Your task to perform on an android device: open a bookmark in the chrome app Image 0: 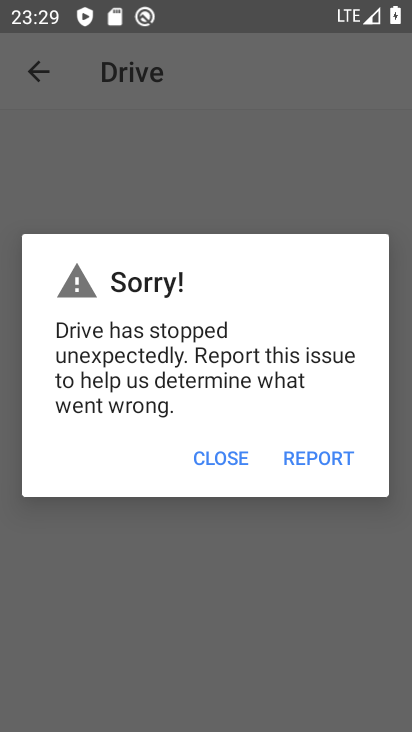
Step 0: press home button
Your task to perform on an android device: open a bookmark in the chrome app Image 1: 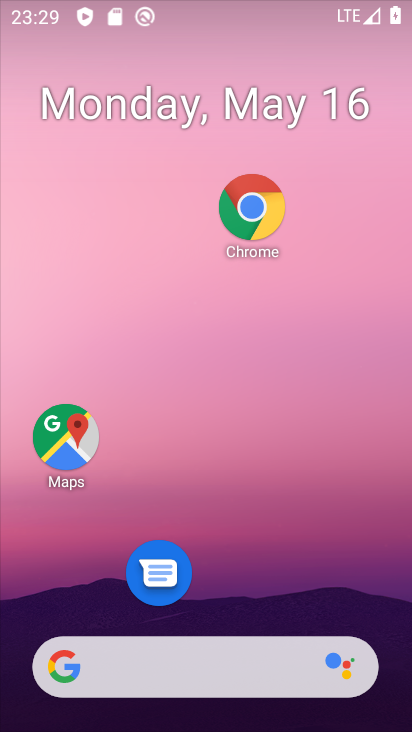
Step 1: drag from (299, 654) to (333, 49)
Your task to perform on an android device: open a bookmark in the chrome app Image 2: 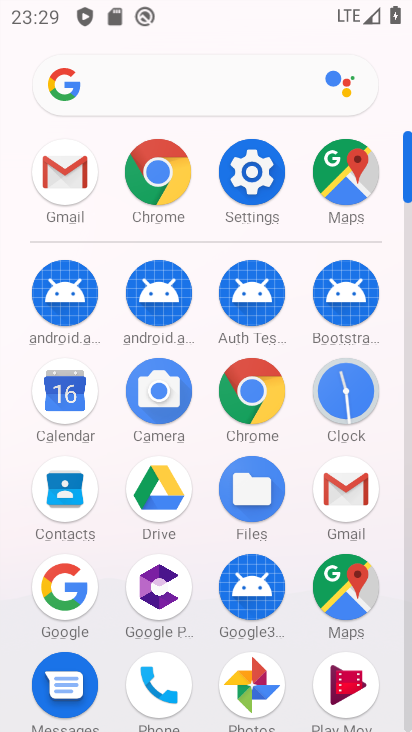
Step 2: click (237, 398)
Your task to perform on an android device: open a bookmark in the chrome app Image 3: 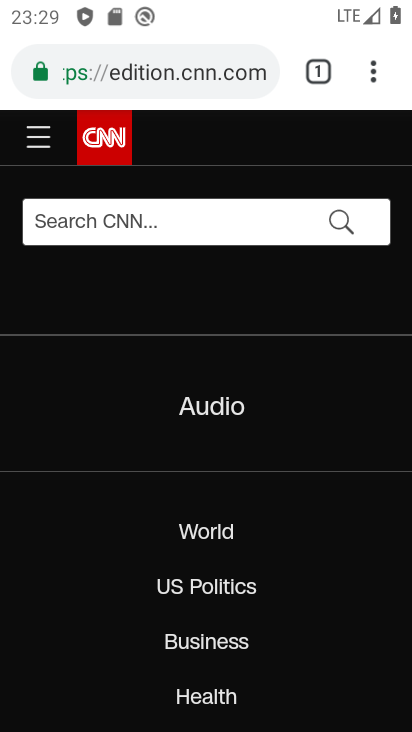
Step 3: click (375, 70)
Your task to perform on an android device: open a bookmark in the chrome app Image 4: 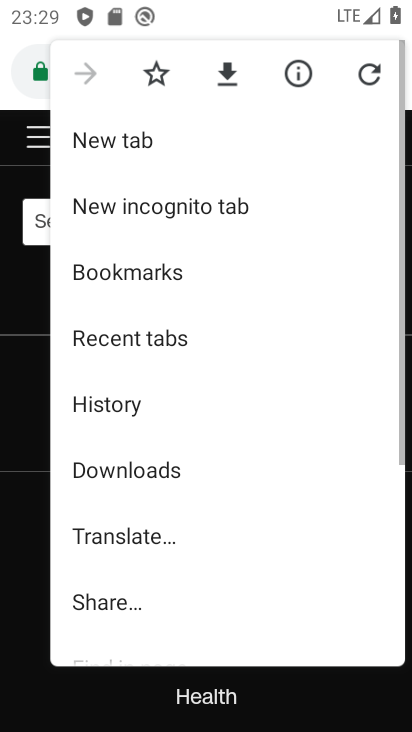
Step 4: click (254, 281)
Your task to perform on an android device: open a bookmark in the chrome app Image 5: 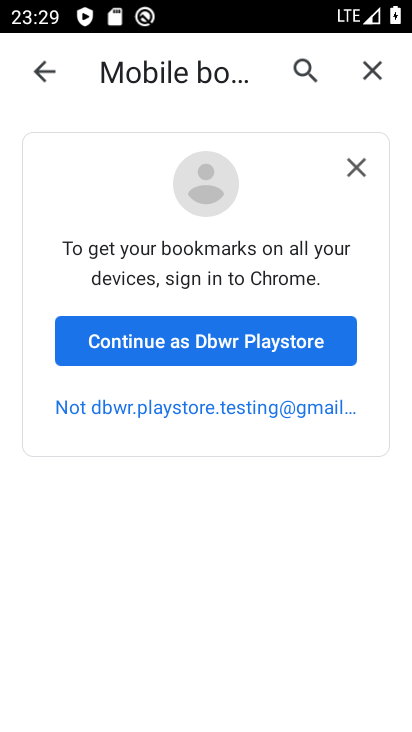
Step 5: task complete